Your task to perform on an android device: toggle translation in the chrome app Image 0: 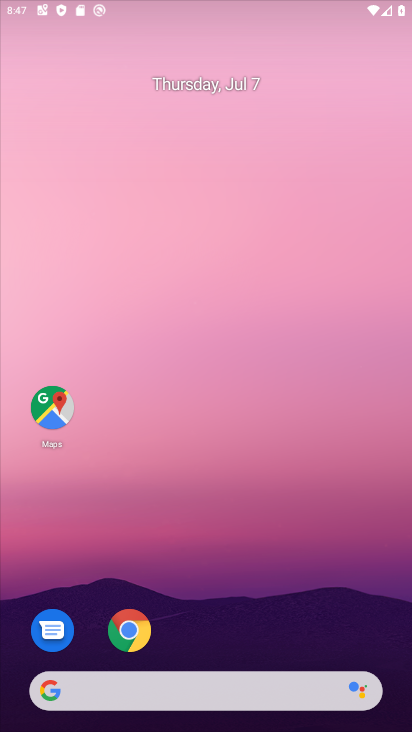
Step 0: drag from (212, 322) to (234, 194)
Your task to perform on an android device: toggle translation in the chrome app Image 1: 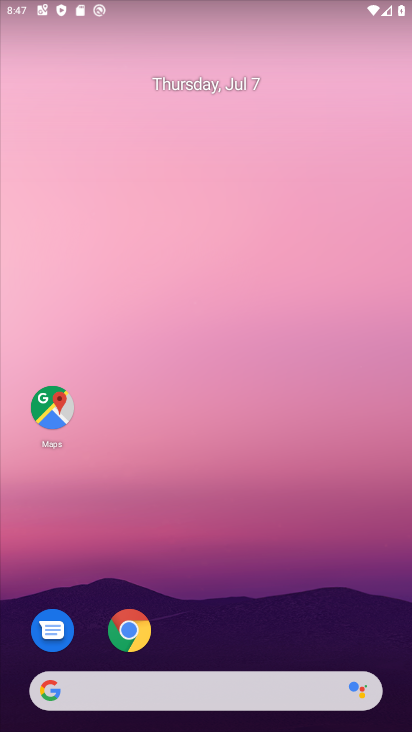
Step 1: drag from (198, 641) to (284, 13)
Your task to perform on an android device: toggle translation in the chrome app Image 2: 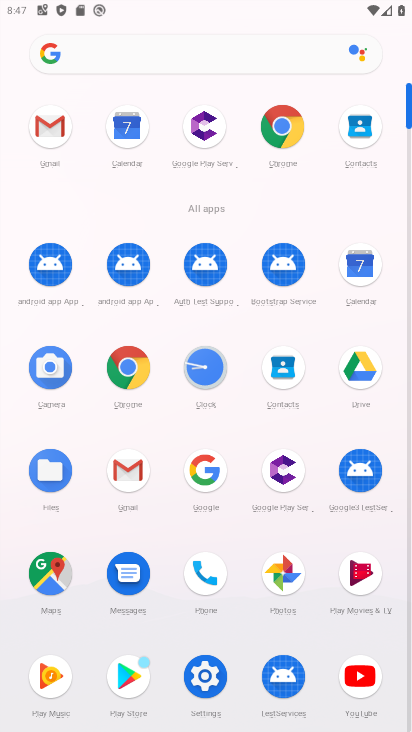
Step 2: click (282, 121)
Your task to perform on an android device: toggle translation in the chrome app Image 3: 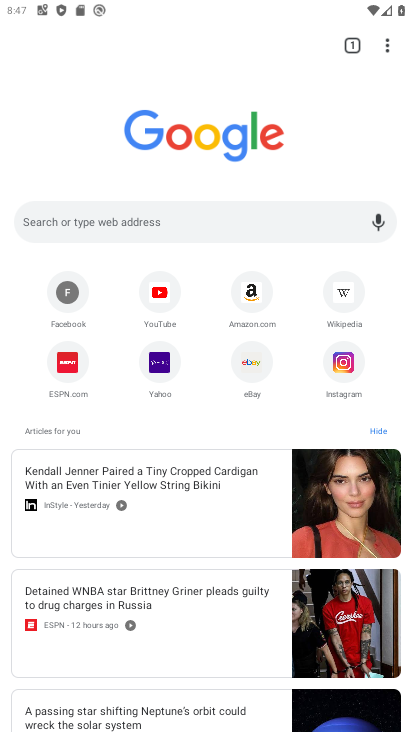
Step 3: drag from (144, 617) to (155, 356)
Your task to perform on an android device: toggle translation in the chrome app Image 4: 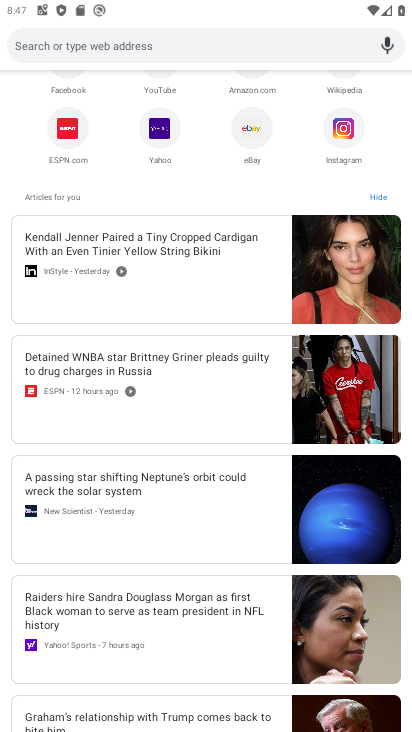
Step 4: drag from (259, 128) to (313, 545)
Your task to perform on an android device: toggle translation in the chrome app Image 5: 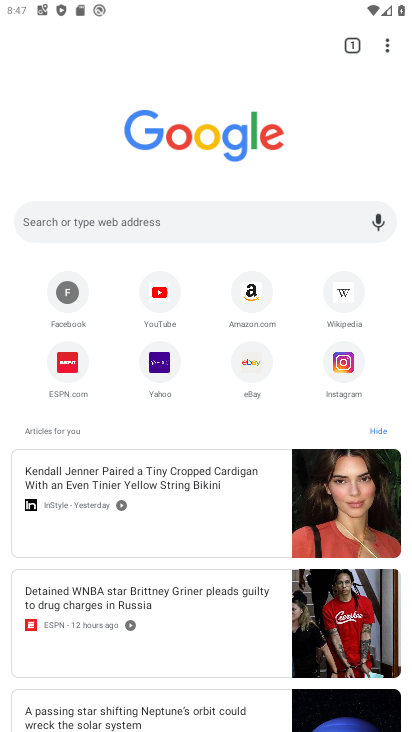
Step 5: click (390, 48)
Your task to perform on an android device: toggle translation in the chrome app Image 6: 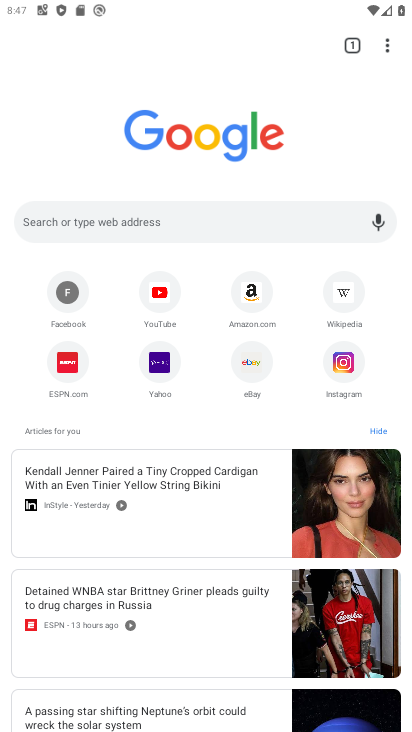
Step 6: drag from (391, 49) to (239, 369)
Your task to perform on an android device: toggle translation in the chrome app Image 7: 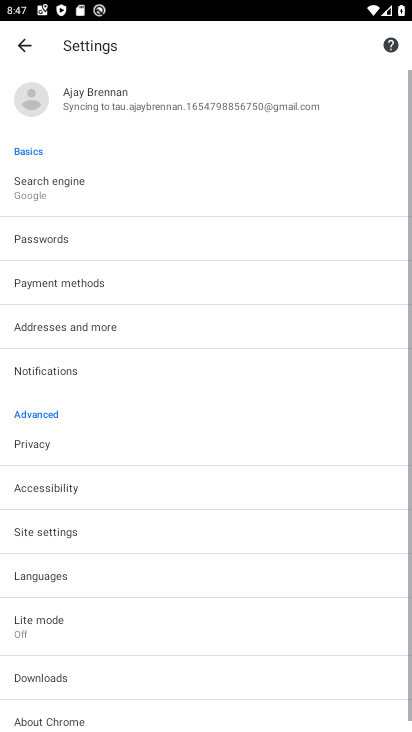
Step 7: drag from (142, 576) to (117, 290)
Your task to perform on an android device: toggle translation in the chrome app Image 8: 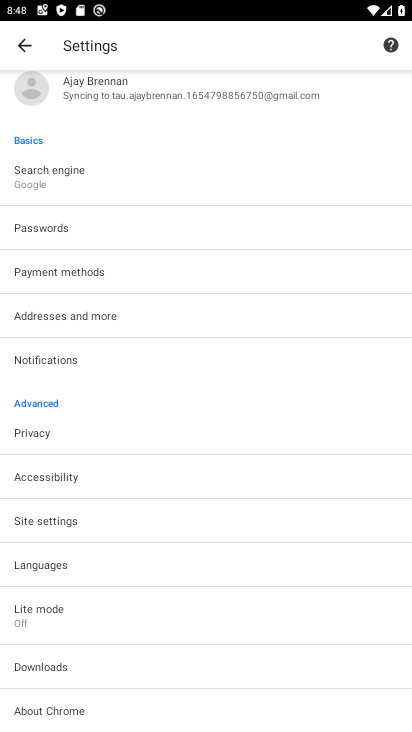
Step 8: click (79, 569)
Your task to perform on an android device: toggle translation in the chrome app Image 9: 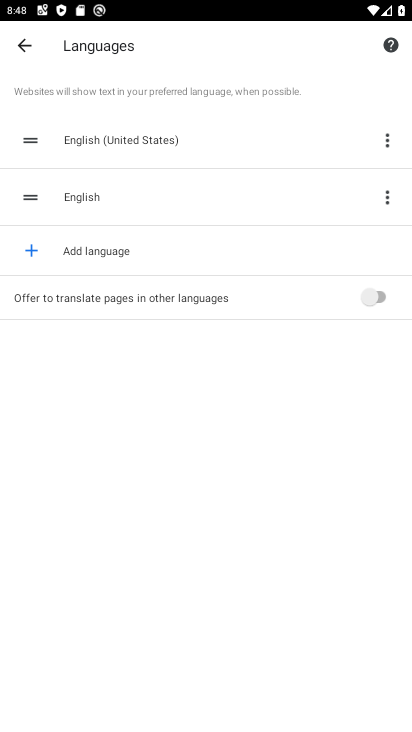
Step 9: drag from (152, 643) to (135, 264)
Your task to perform on an android device: toggle translation in the chrome app Image 10: 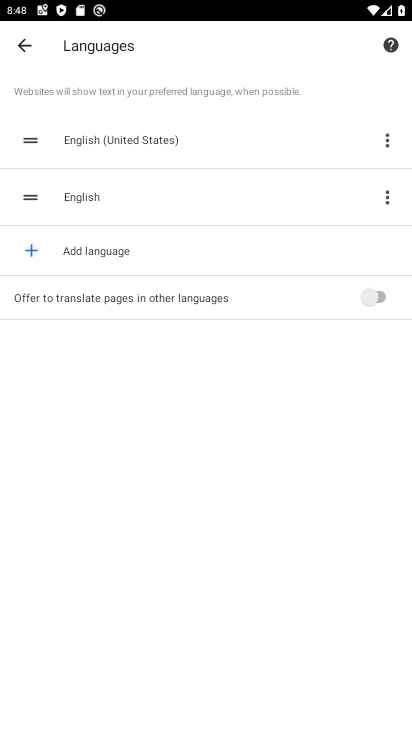
Step 10: click (357, 294)
Your task to perform on an android device: toggle translation in the chrome app Image 11: 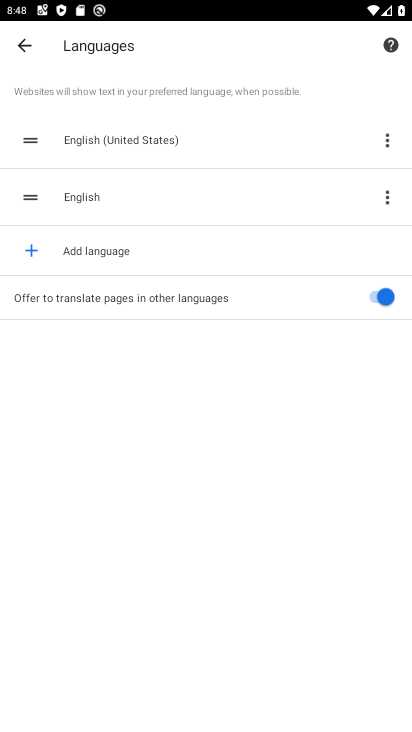
Step 11: task complete